Your task to perform on an android device: Open calendar and show me the second week of next month Image 0: 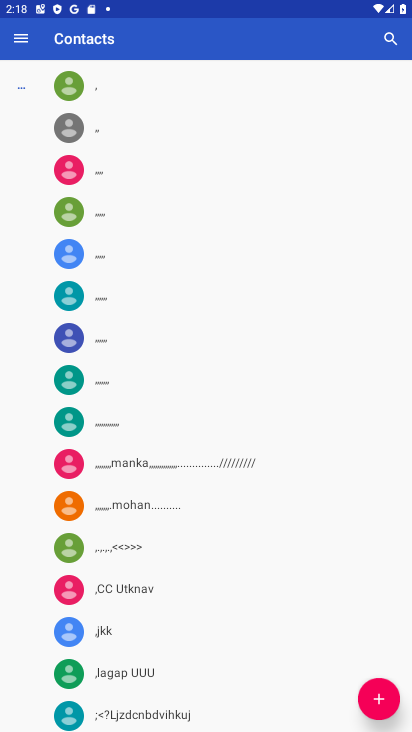
Step 0: press back button
Your task to perform on an android device: Open calendar and show me the second week of next month Image 1: 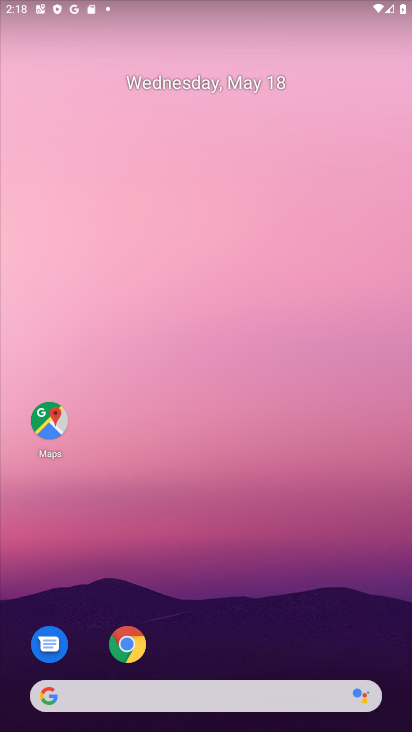
Step 1: drag from (243, 612) to (195, 91)
Your task to perform on an android device: Open calendar and show me the second week of next month Image 2: 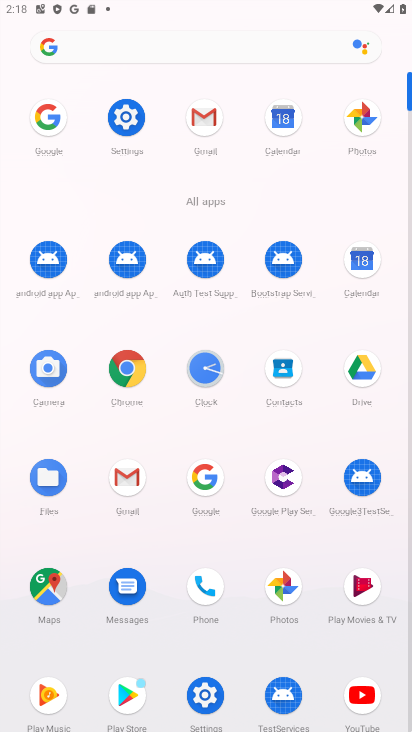
Step 2: click (281, 118)
Your task to perform on an android device: Open calendar and show me the second week of next month Image 3: 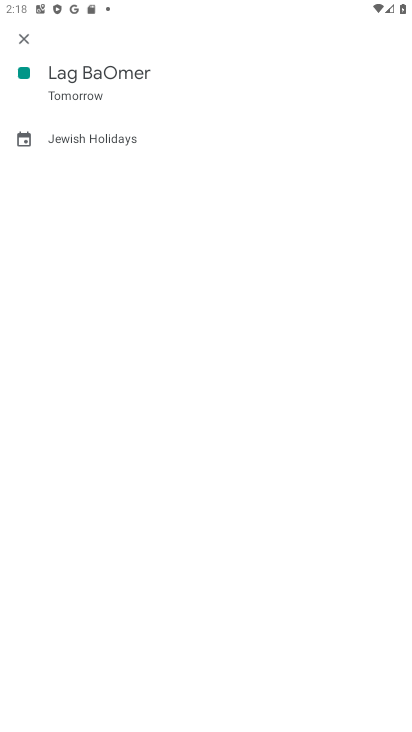
Step 3: click (26, 41)
Your task to perform on an android device: Open calendar and show me the second week of next month Image 4: 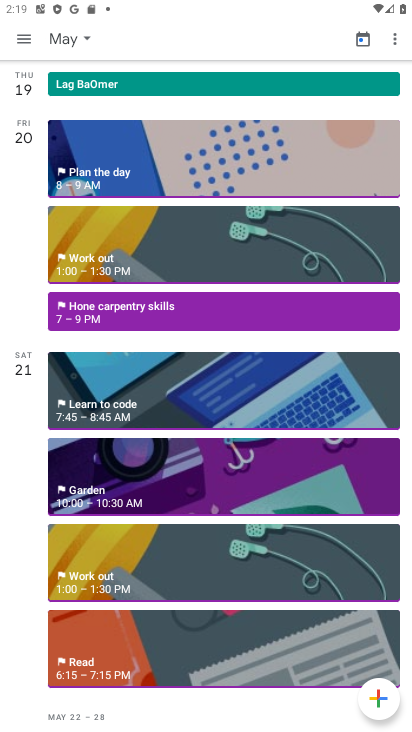
Step 4: click (364, 40)
Your task to perform on an android device: Open calendar and show me the second week of next month Image 5: 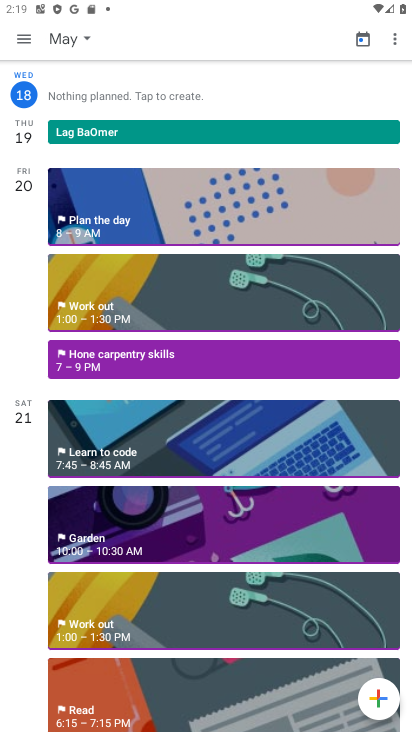
Step 5: click (83, 36)
Your task to perform on an android device: Open calendar and show me the second week of next month Image 6: 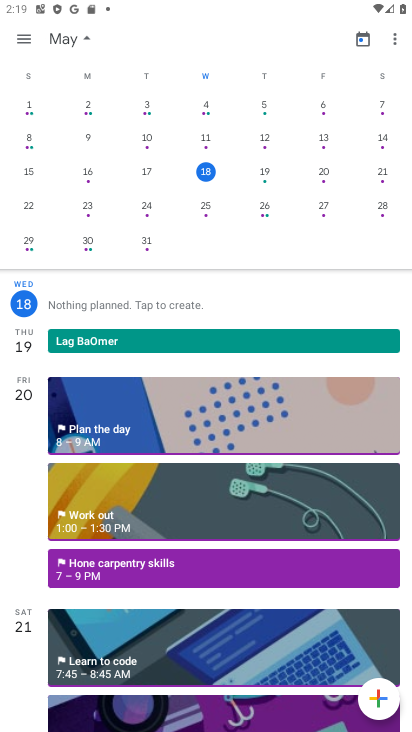
Step 6: drag from (338, 183) to (4, 228)
Your task to perform on an android device: Open calendar and show me the second week of next month Image 7: 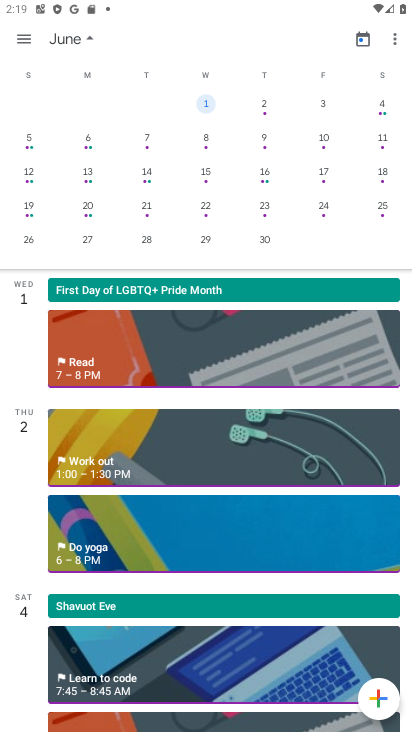
Step 7: click (91, 173)
Your task to perform on an android device: Open calendar and show me the second week of next month Image 8: 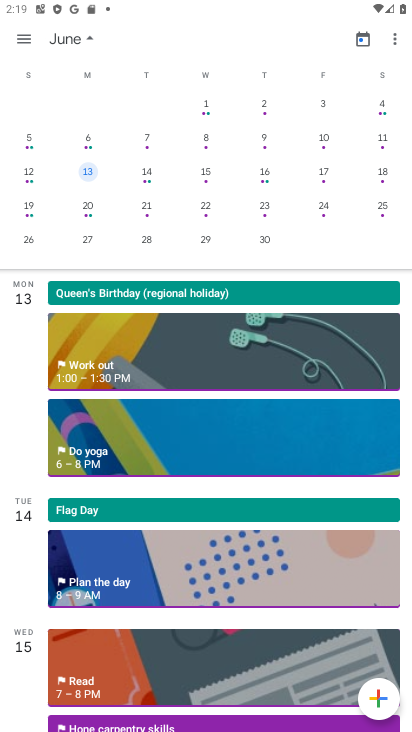
Step 8: click (22, 41)
Your task to perform on an android device: Open calendar and show me the second week of next month Image 9: 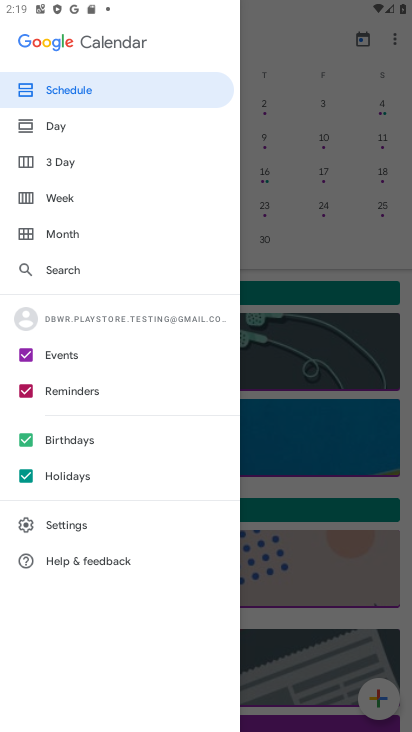
Step 9: click (49, 196)
Your task to perform on an android device: Open calendar and show me the second week of next month Image 10: 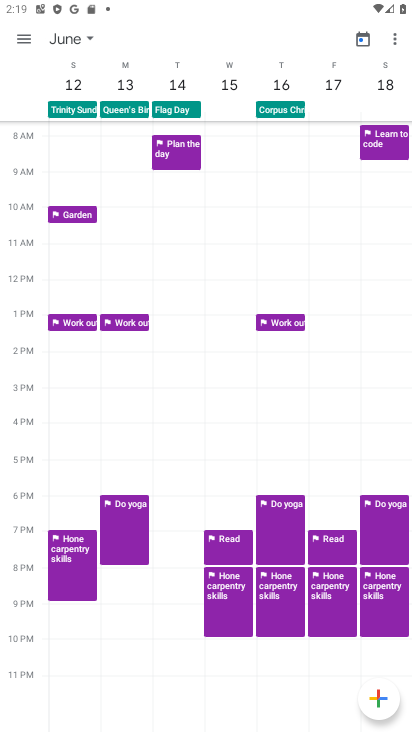
Step 10: task complete